Your task to perform on an android device: check the backup settings in the google photos Image 0: 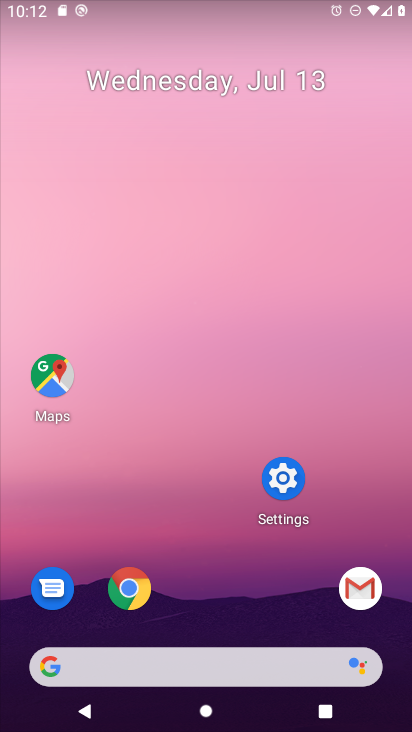
Step 0: press home button
Your task to perform on an android device: check the backup settings in the google photos Image 1: 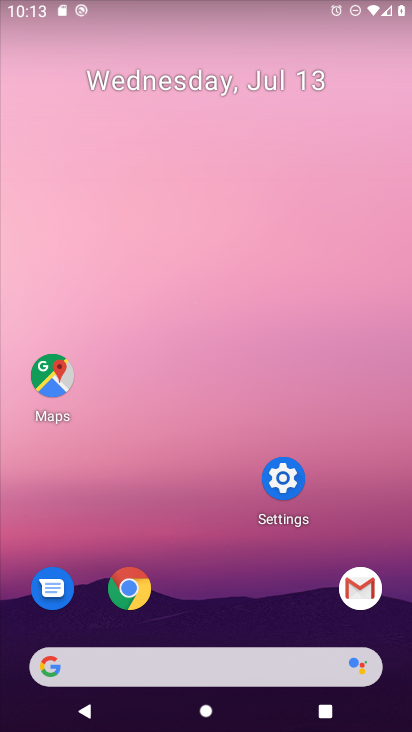
Step 1: drag from (260, 667) to (210, 70)
Your task to perform on an android device: check the backup settings in the google photos Image 2: 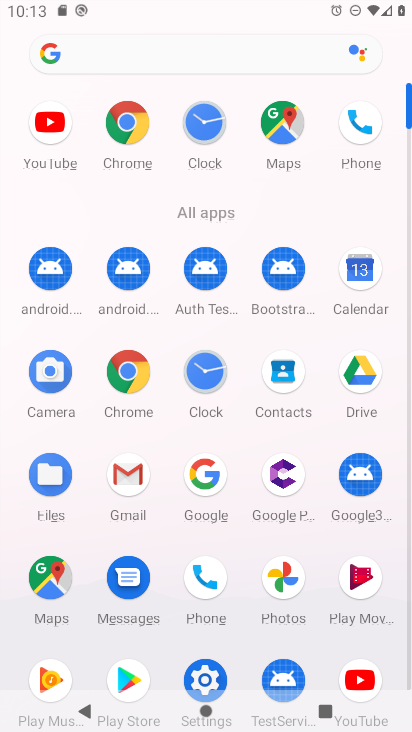
Step 2: click (287, 571)
Your task to perform on an android device: check the backup settings in the google photos Image 3: 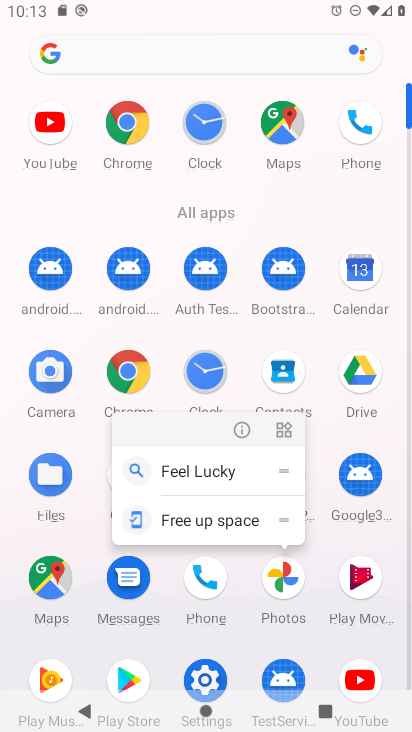
Step 3: click (284, 567)
Your task to perform on an android device: check the backup settings in the google photos Image 4: 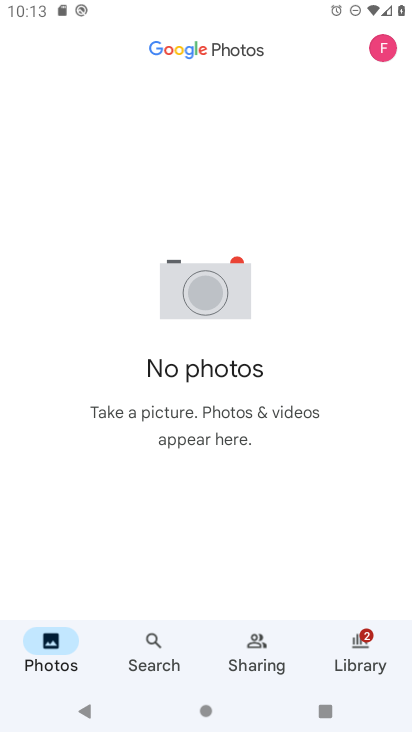
Step 4: click (372, 52)
Your task to perform on an android device: check the backup settings in the google photos Image 5: 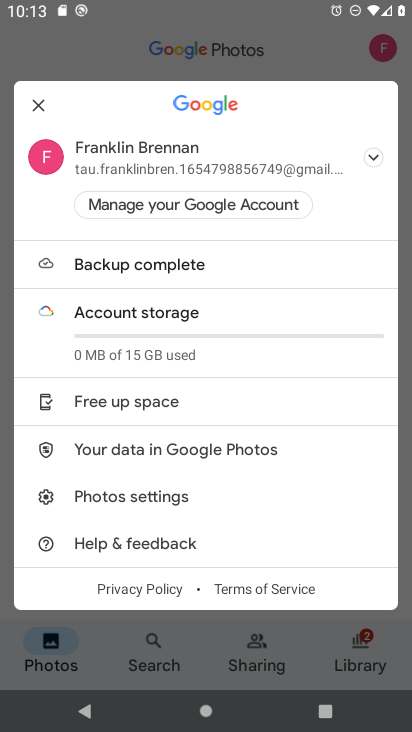
Step 5: click (107, 498)
Your task to perform on an android device: check the backup settings in the google photos Image 6: 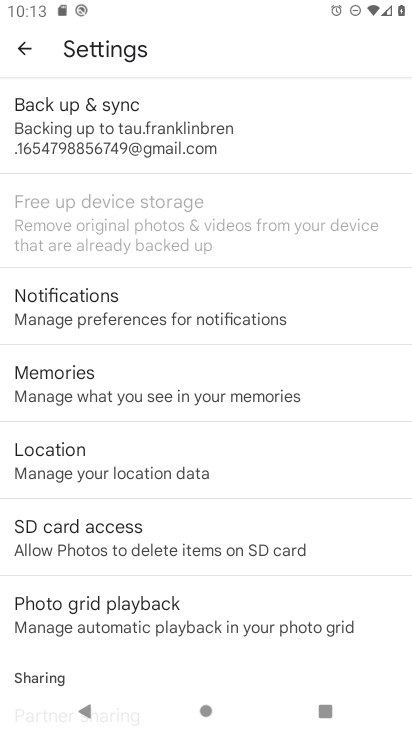
Step 6: click (143, 139)
Your task to perform on an android device: check the backup settings in the google photos Image 7: 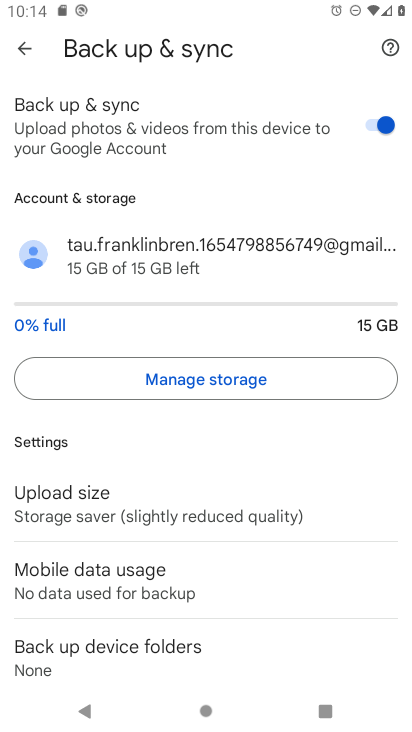
Step 7: task complete